Your task to perform on an android device: Search for pizza restaurants on Maps Image 0: 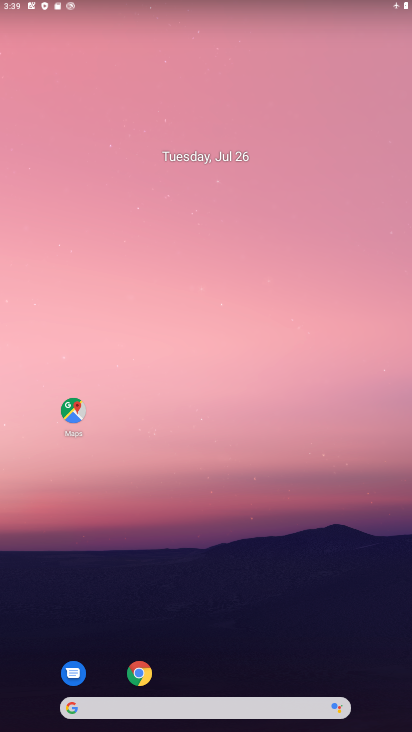
Step 0: click (75, 414)
Your task to perform on an android device: Search for pizza restaurants on Maps Image 1: 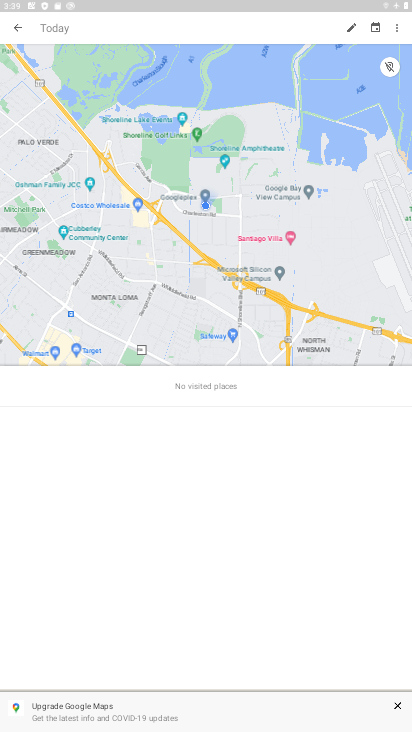
Step 1: click (16, 28)
Your task to perform on an android device: Search for pizza restaurants on Maps Image 2: 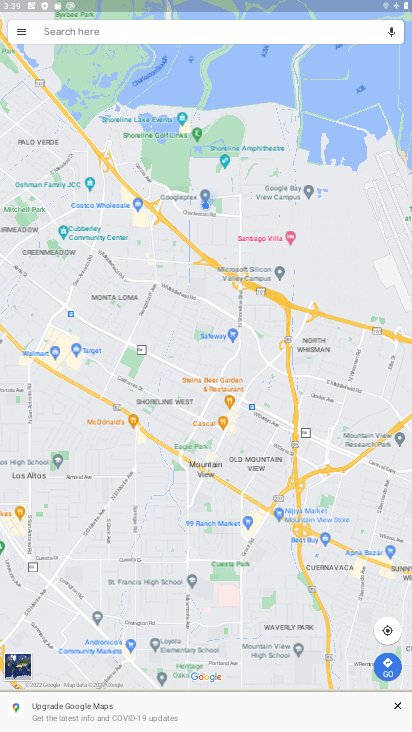
Step 2: click (46, 34)
Your task to perform on an android device: Search for pizza restaurants on Maps Image 3: 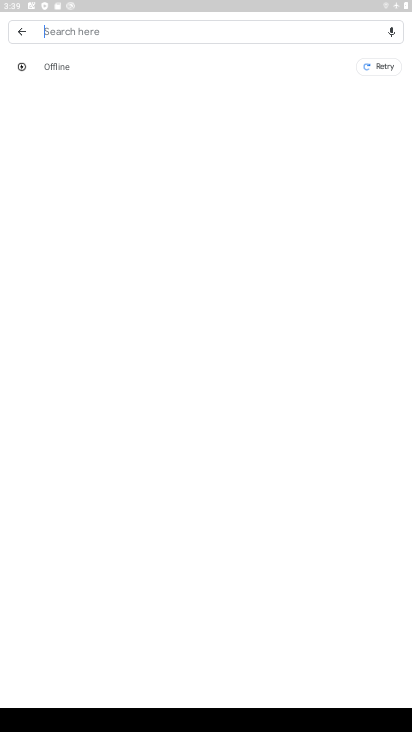
Step 3: type "pizza restaurant"
Your task to perform on an android device: Search for pizza restaurants on Maps Image 4: 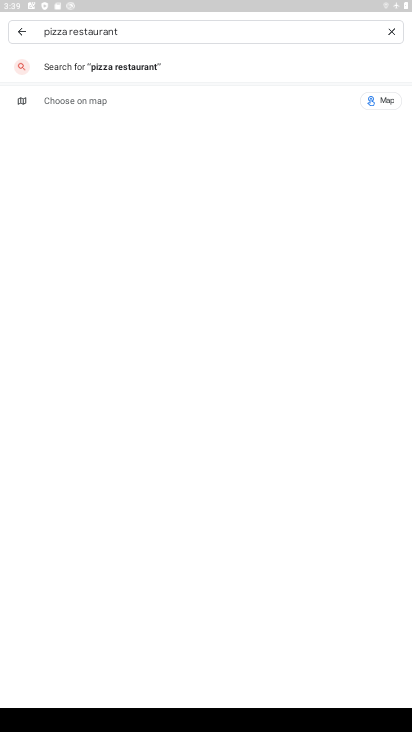
Step 4: click (89, 70)
Your task to perform on an android device: Search for pizza restaurants on Maps Image 5: 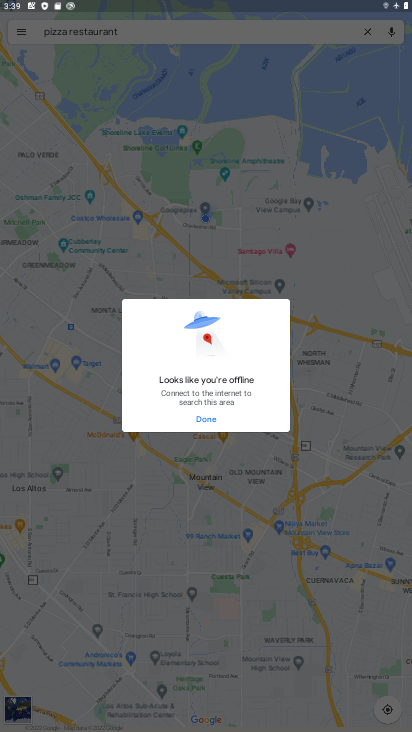
Step 5: task complete